Your task to perform on an android device: delete the emails in spam in the gmail app Image 0: 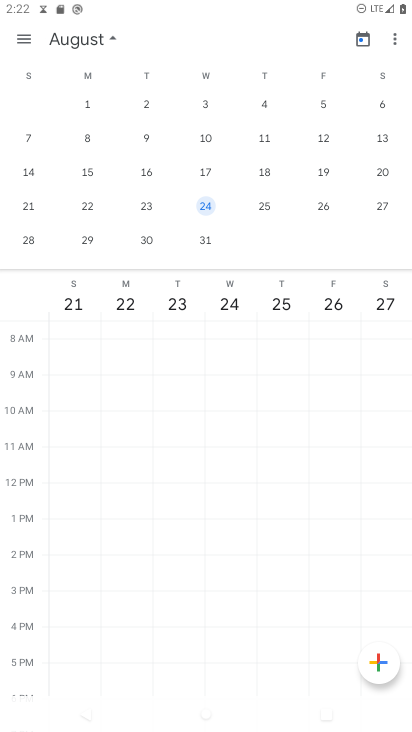
Step 0: press home button
Your task to perform on an android device: delete the emails in spam in the gmail app Image 1: 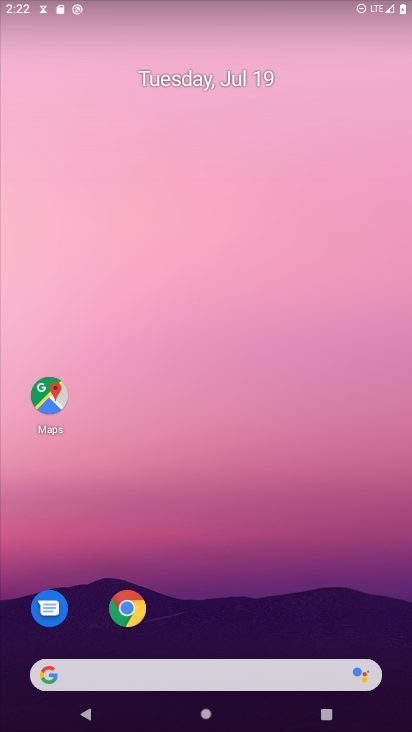
Step 1: drag from (336, 605) to (299, 93)
Your task to perform on an android device: delete the emails in spam in the gmail app Image 2: 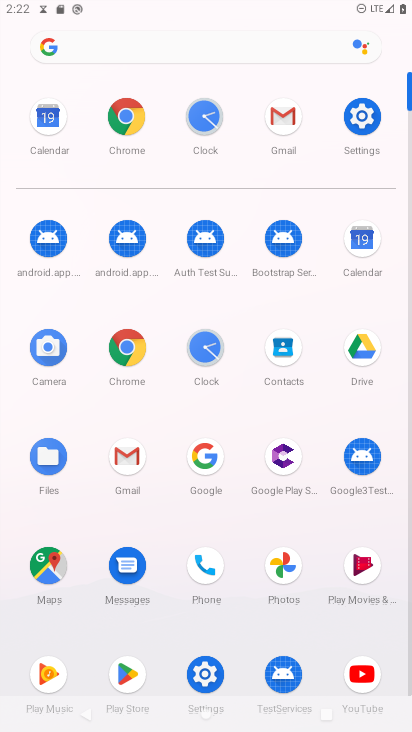
Step 2: click (124, 450)
Your task to perform on an android device: delete the emails in spam in the gmail app Image 3: 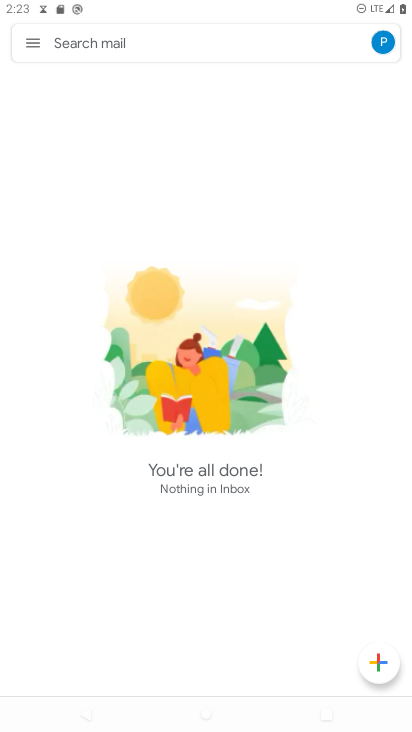
Step 3: click (22, 40)
Your task to perform on an android device: delete the emails in spam in the gmail app Image 4: 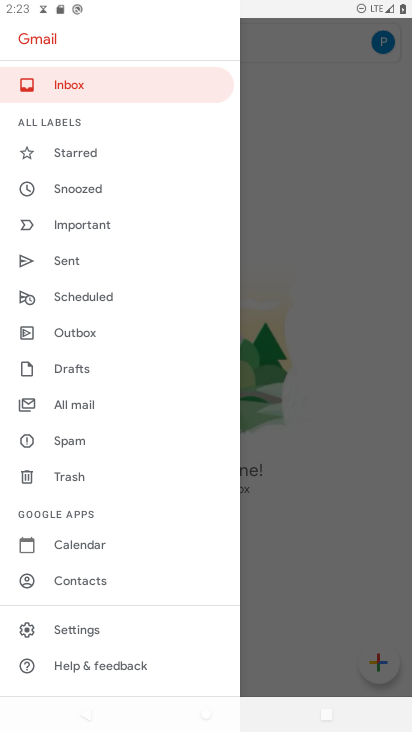
Step 4: click (69, 431)
Your task to perform on an android device: delete the emails in spam in the gmail app Image 5: 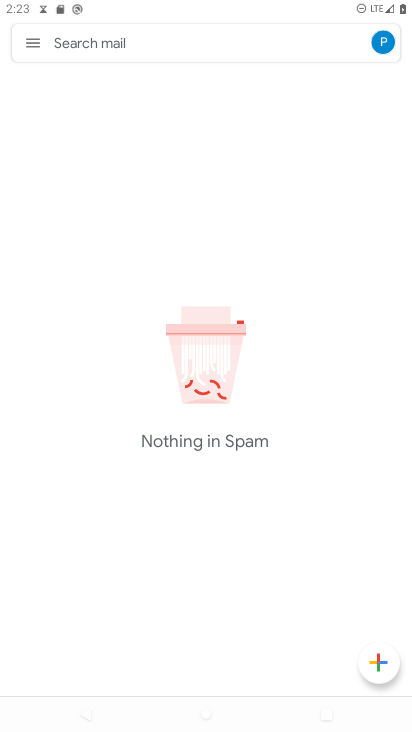
Step 5: task complete